Your task to perform on an android device: install app "Grab" Image 0: 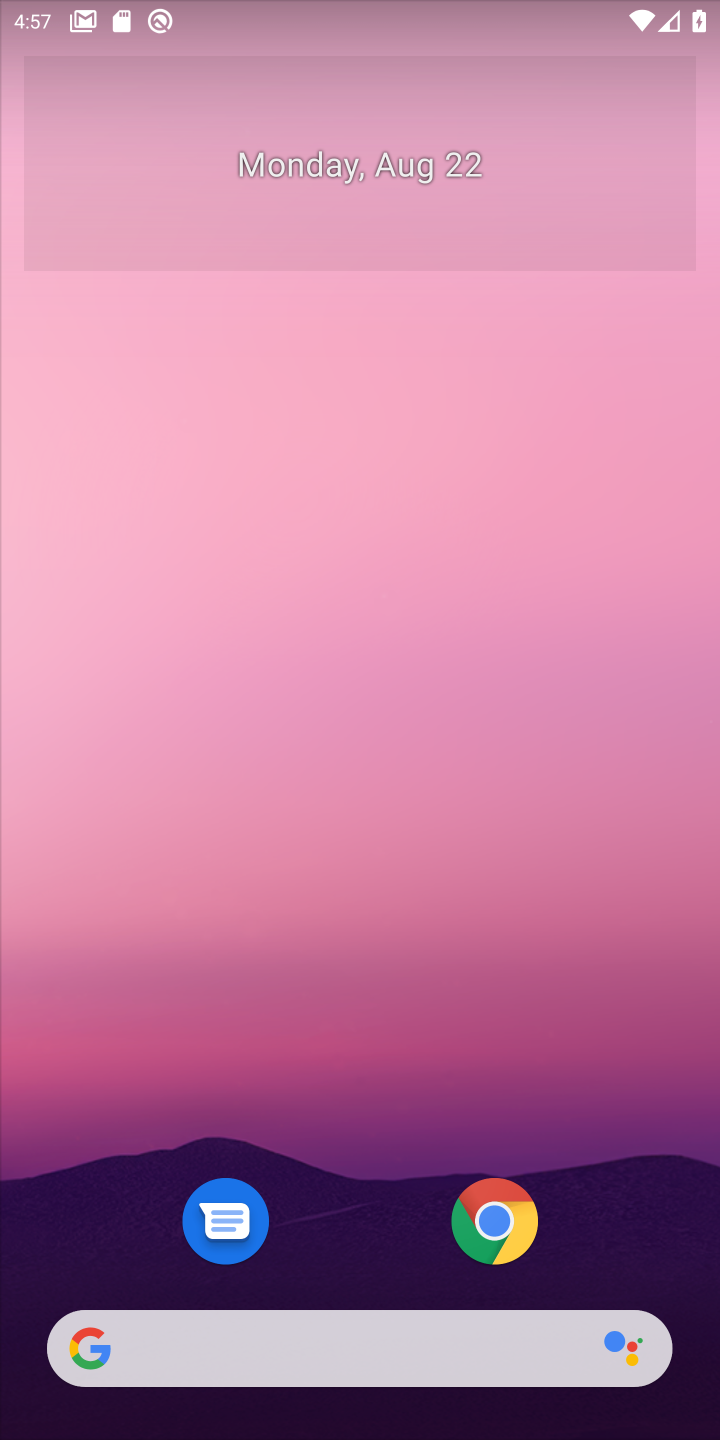
Step 0: drag from (376, 825) to (403, 55)
Your task to perform on an android device: install app "Grab" Image 1: 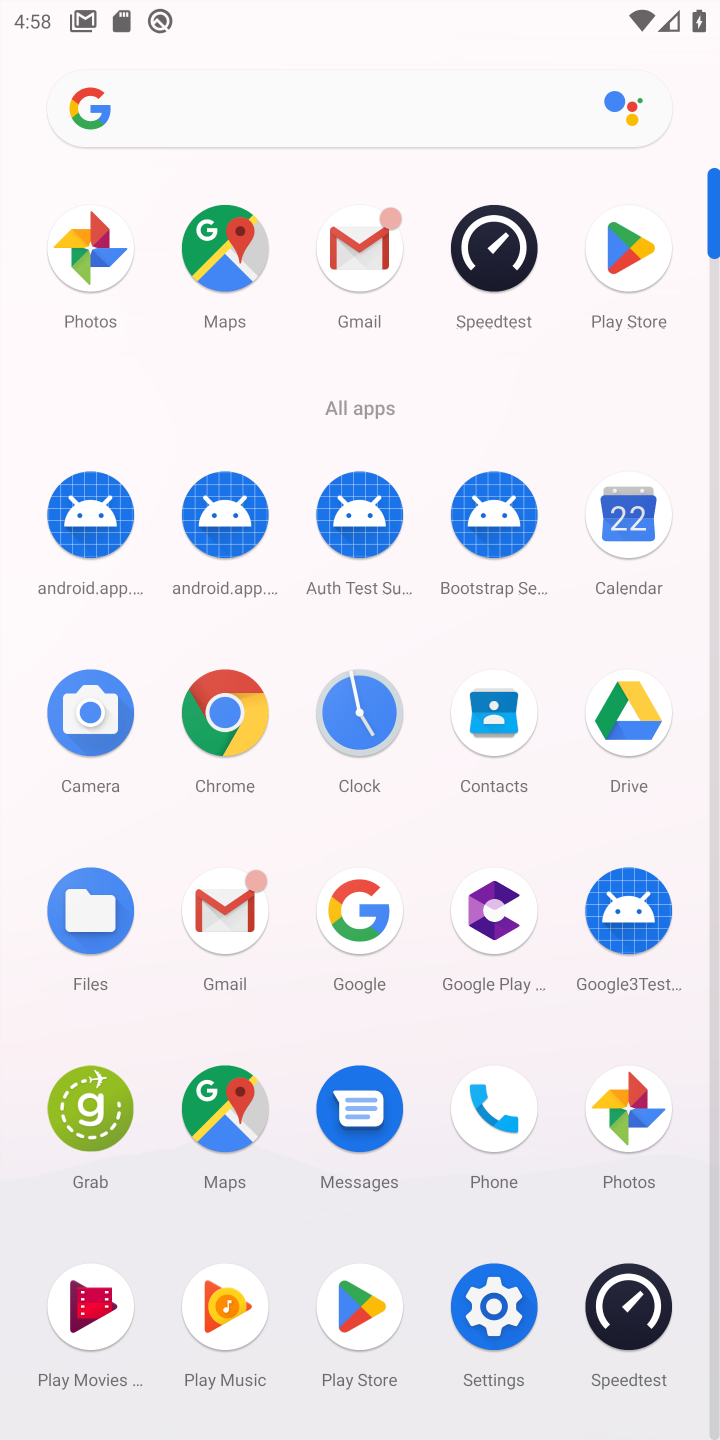
Step 1: click (612, 243)
Your task to perform on an android device: install app "Grab" Image 2: 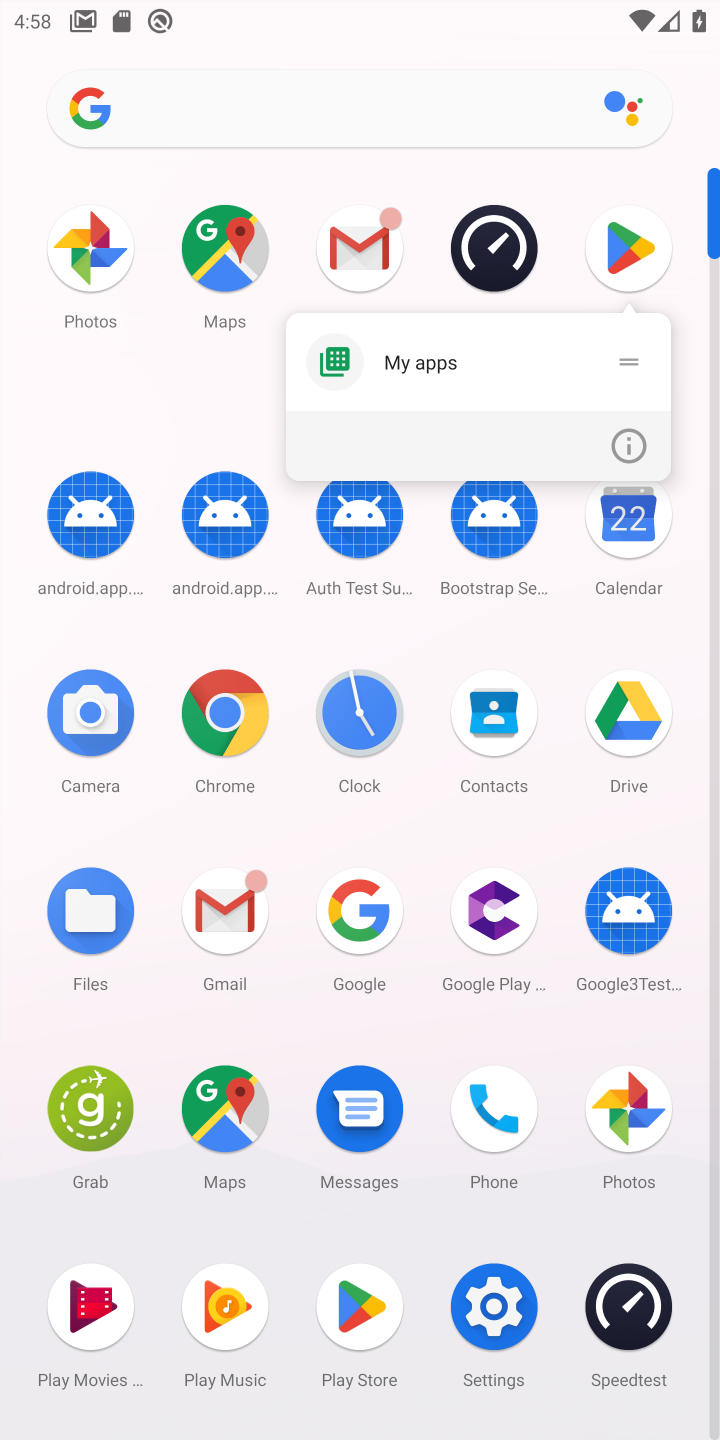
Step 2: click (612, 242)
Your task to perform on an android device: install app "Grab" Image 3: 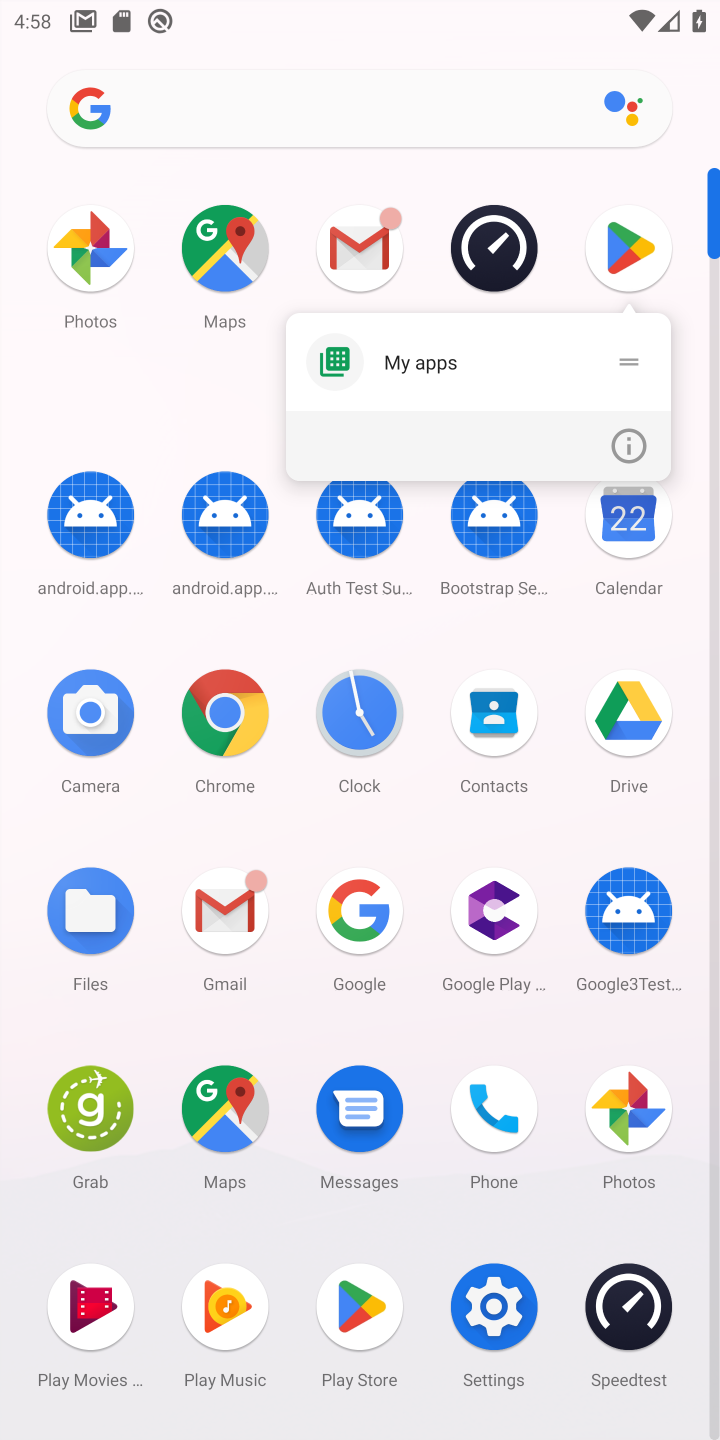
Step 3: click (612, 242)
Your task to perform on an android device: install app "Grab" Image 4: 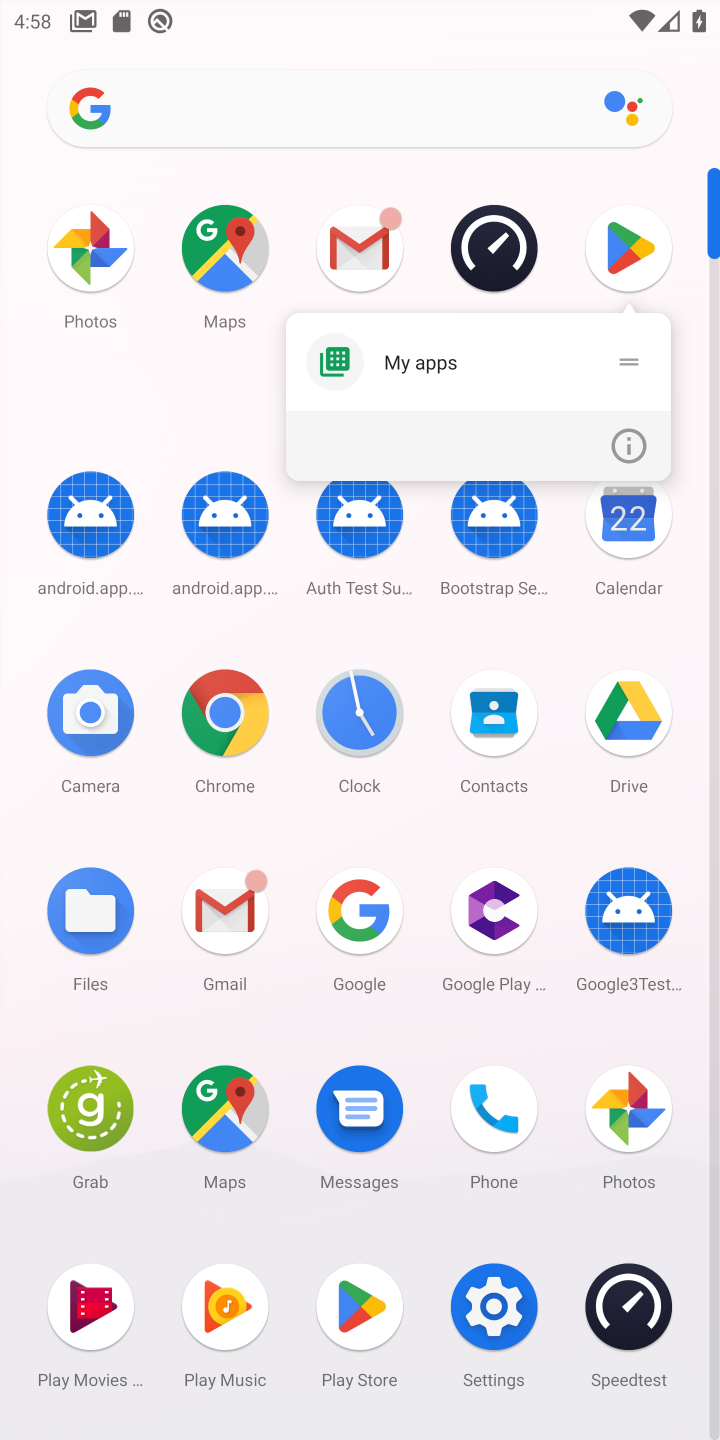
Step 4: click (620, 255)
Your task to perform on an android device: install app "Grab" Image 5: 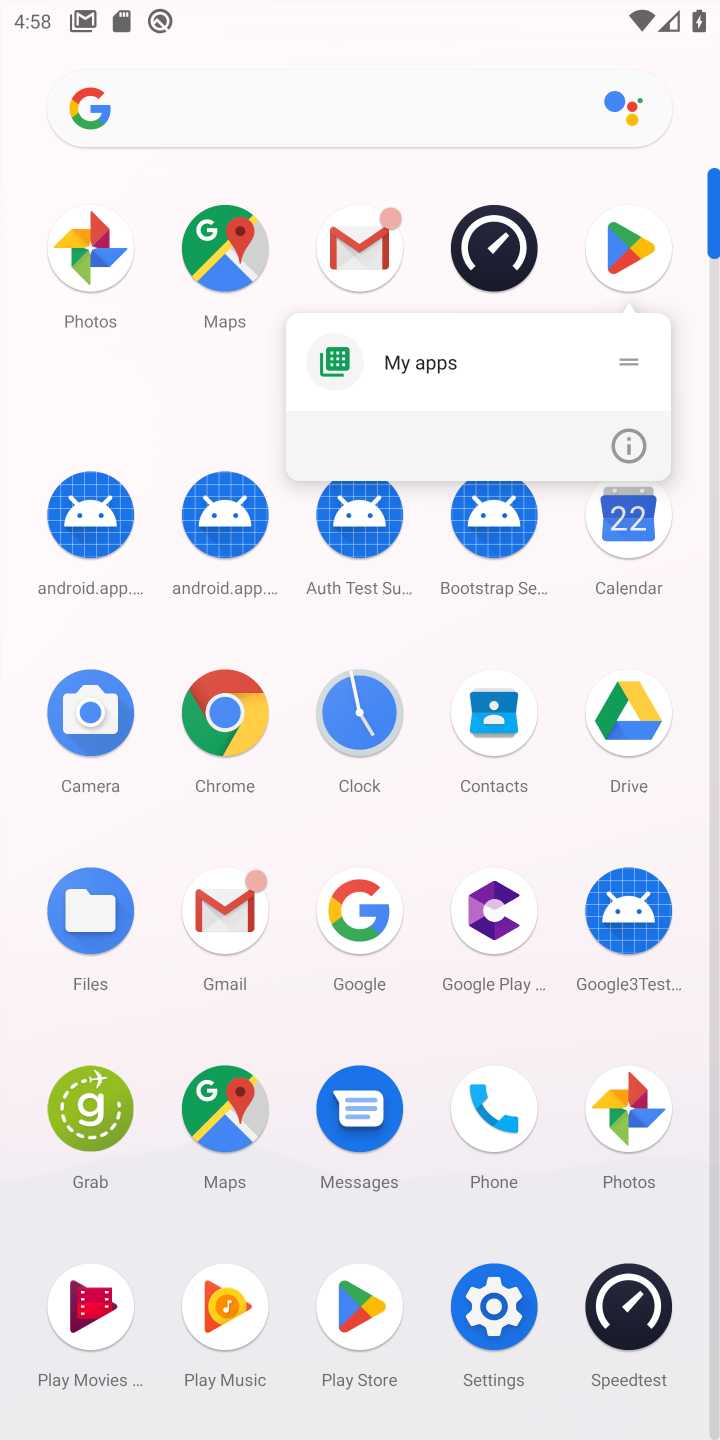
Step 5: click (620, 254)
Your task to perform on an android device: install app "Grab" Image 6: 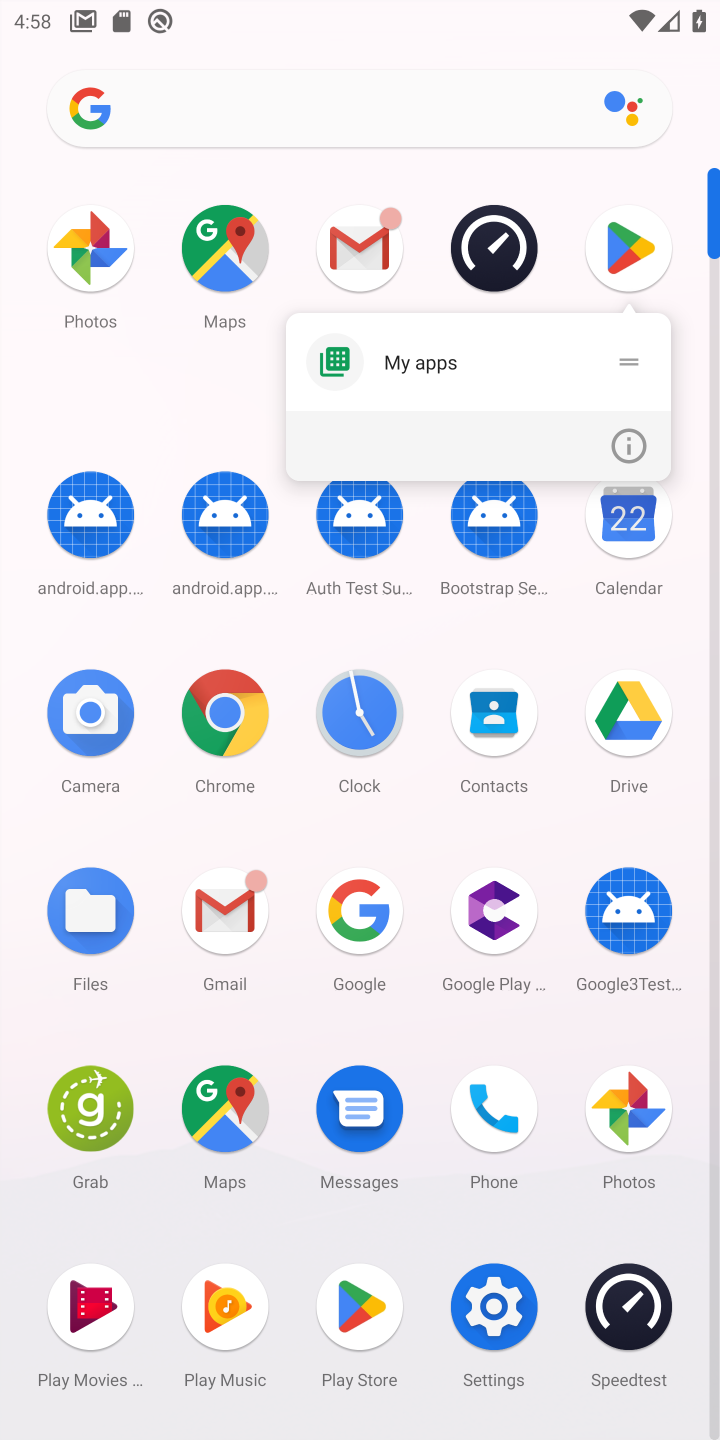
Step 6: click (636, 261)
Your task to perform on an android device: install app "Grab" Image 7: 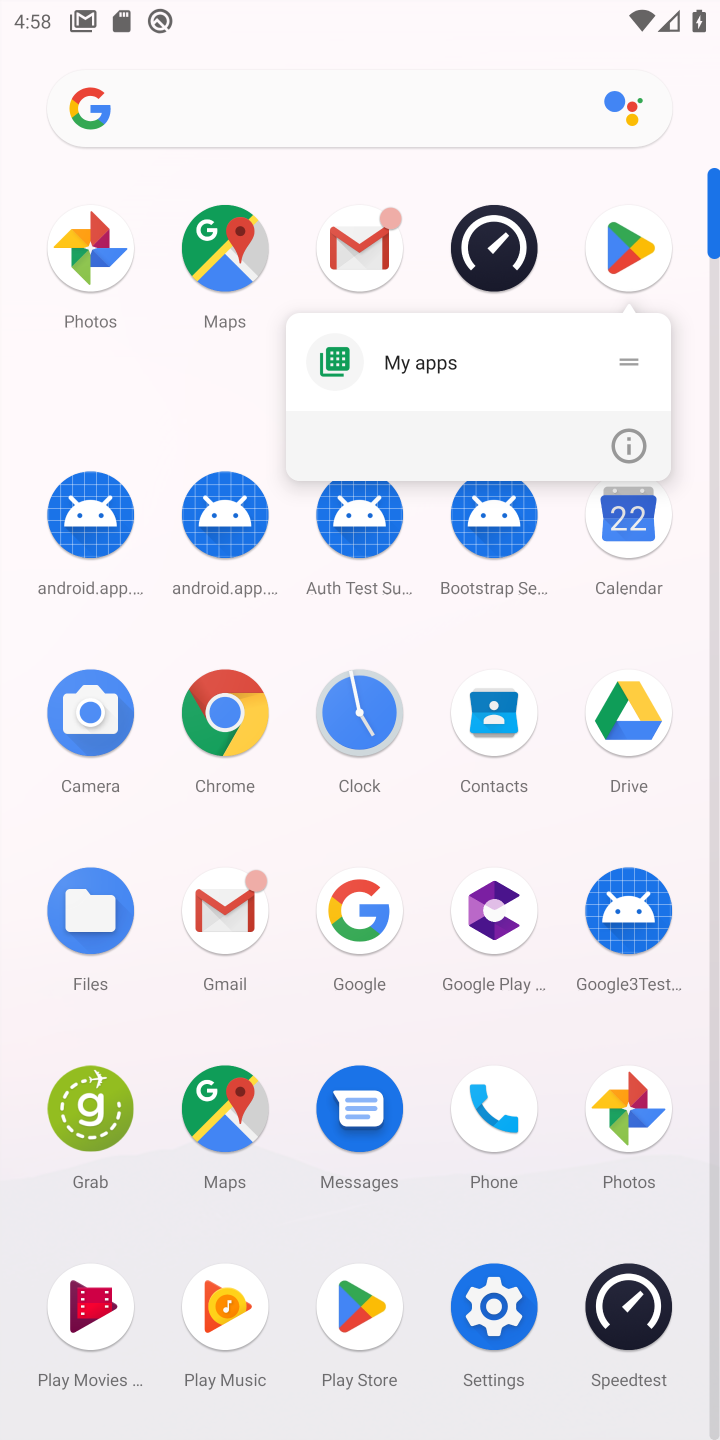
Step 7: click (636, 264)
Your task to perform on an android device: install app "Grab" Image 8: 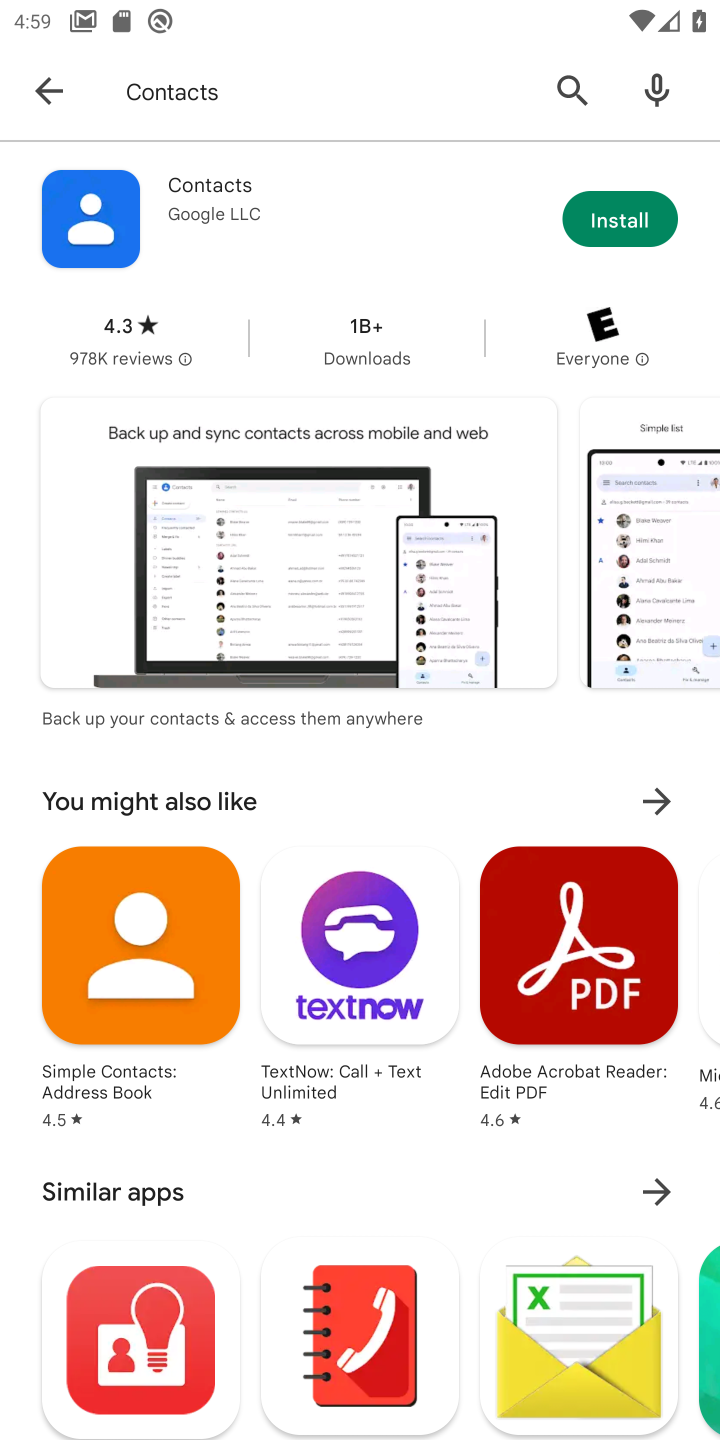
Step 8: press back button
Your task to perform on an android device: install app "Grab" Image 9: 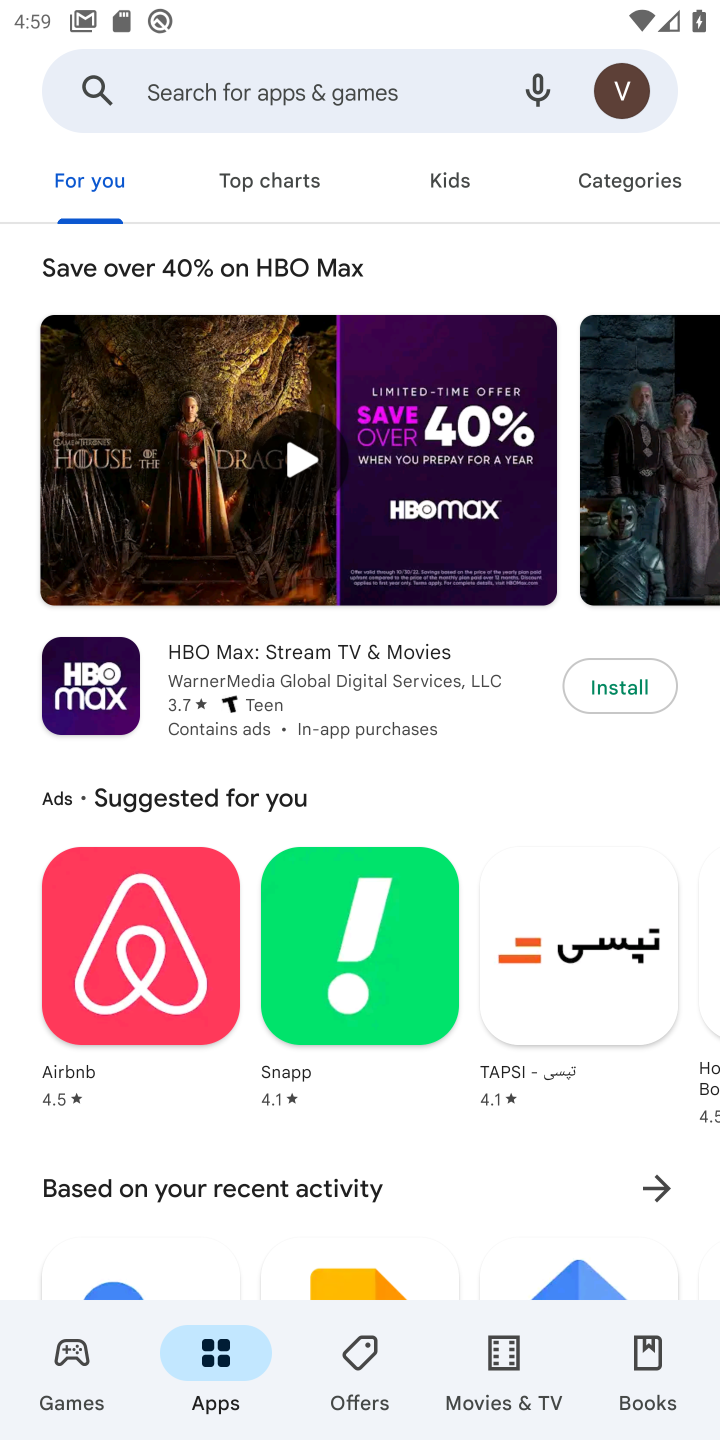
Step 9: click (432, 80)
Your task to perform on an android device: install app "Grab" Image 10: 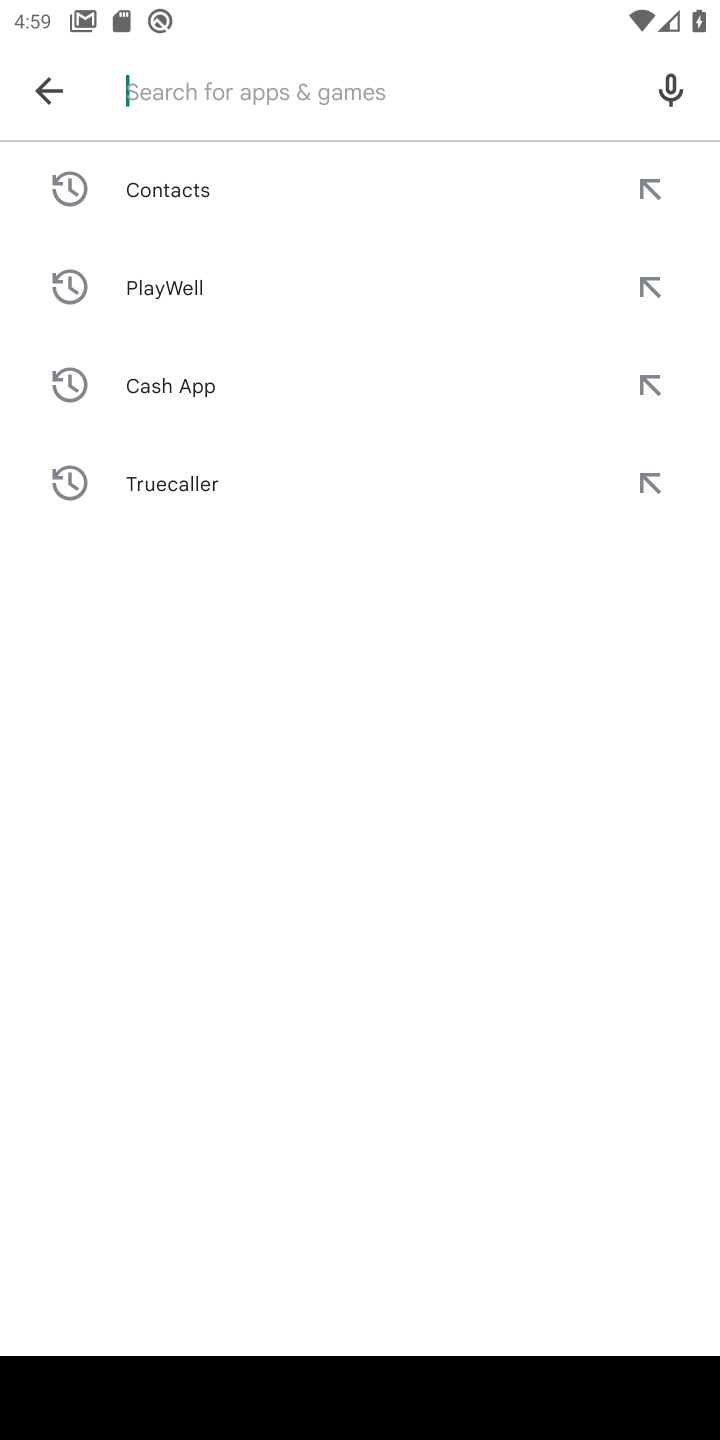
Step 10: type "Grab"
Your task to perform on an android device: install app "Grab" Image 11: 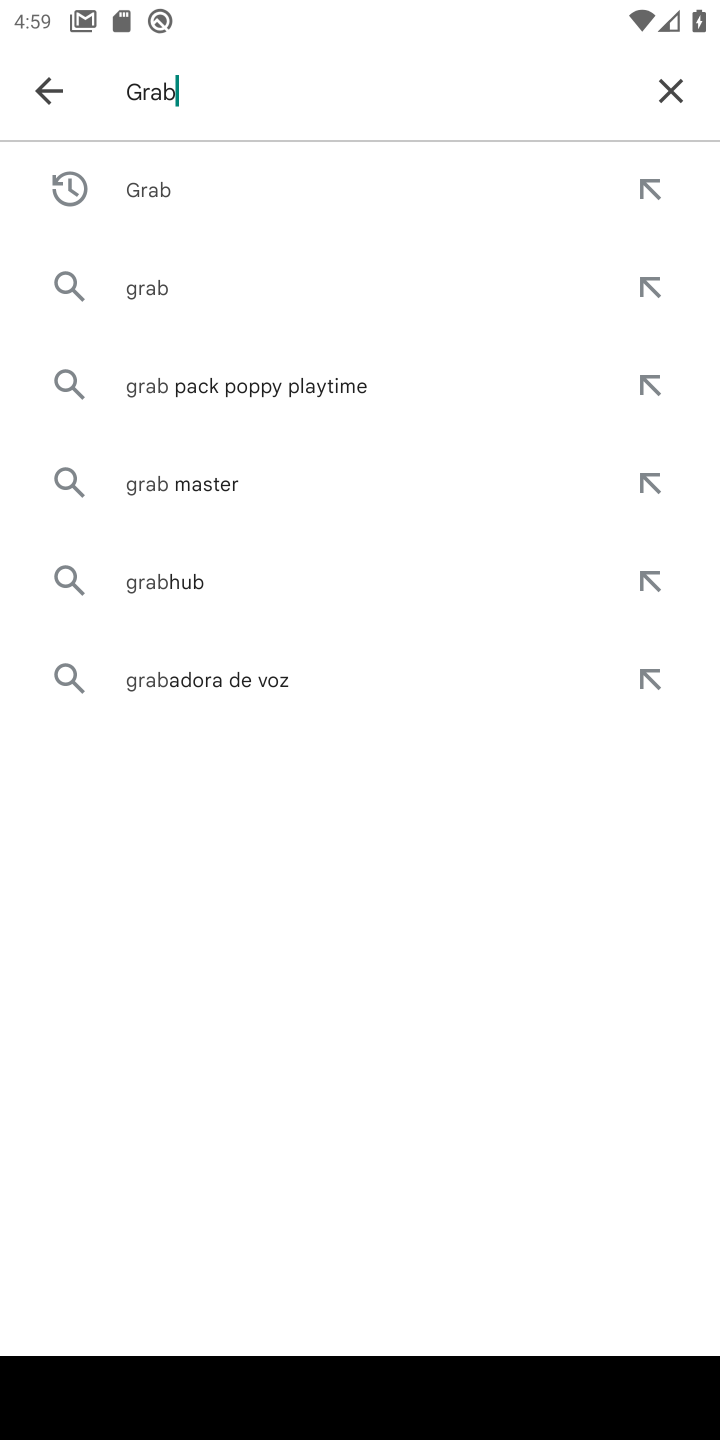
Step 11: press enter
Your task to perform on an android device: install app "Grab" Image 12: 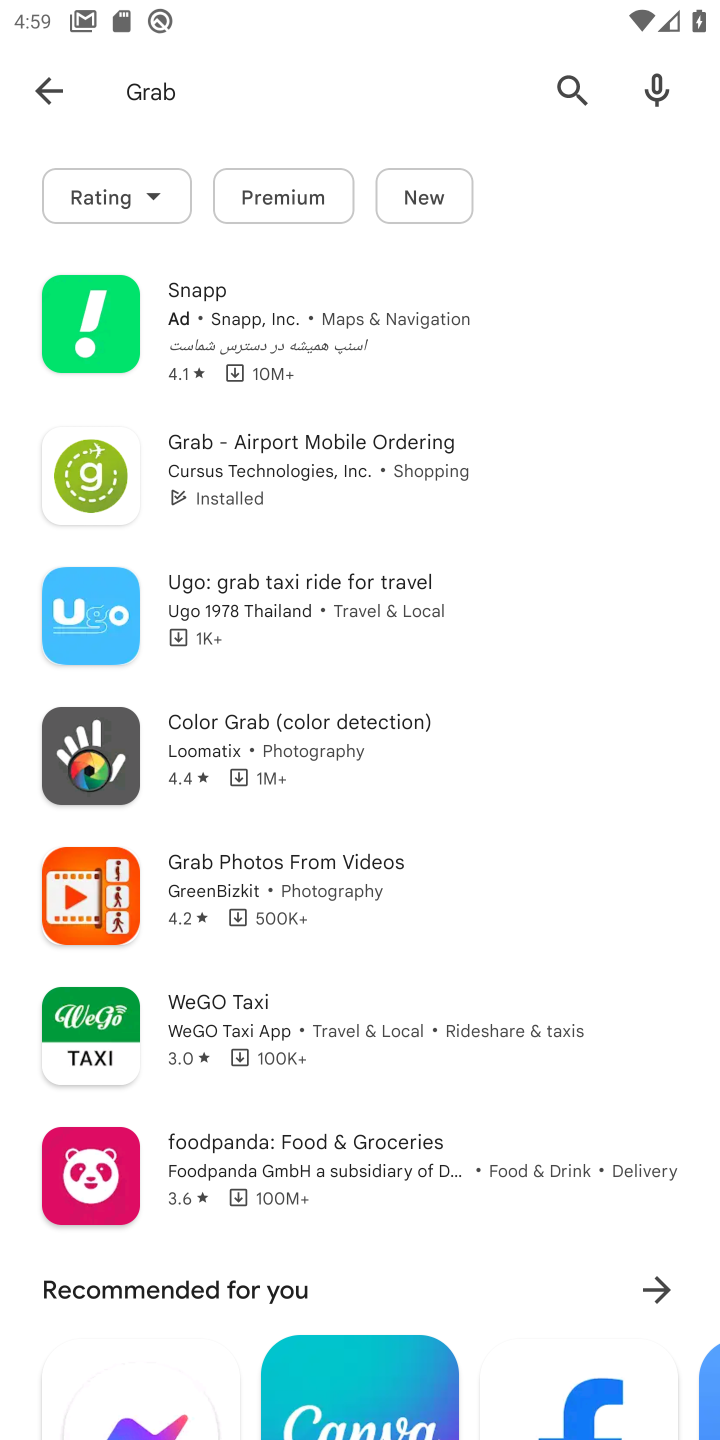
Step 12: click (307, 474)
Your task to perform on an android device: install app "Grab" Image 13: 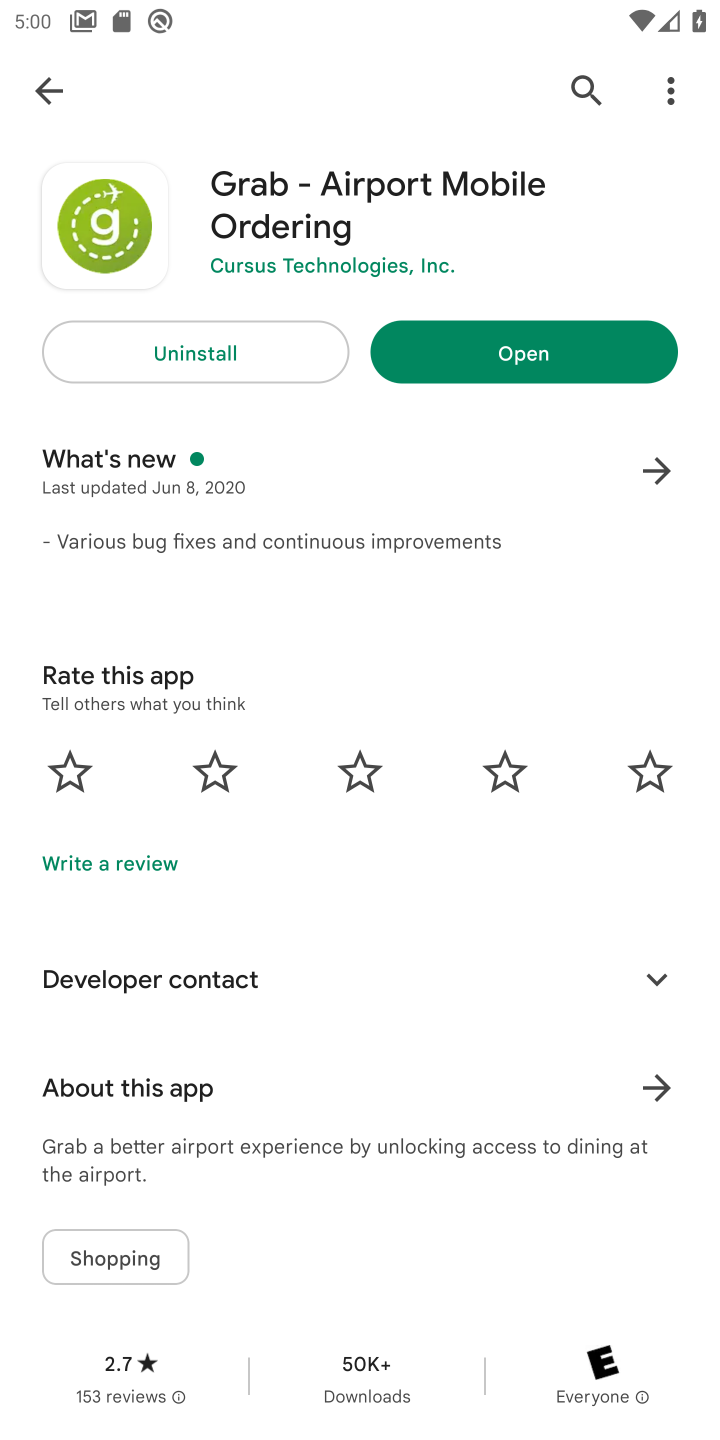
Step 13: task complete